Your task to perform on an android device: Go to Reddit.com Image 0: 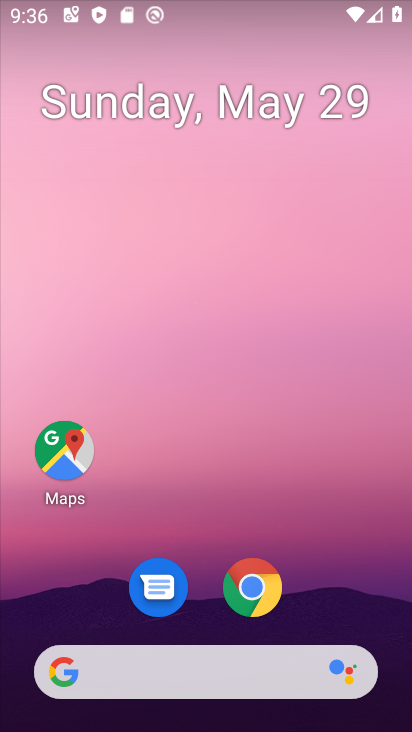
Step 0: click (257, 591)
Your task to perform on an android device: Go to Reddit.com Image 1: 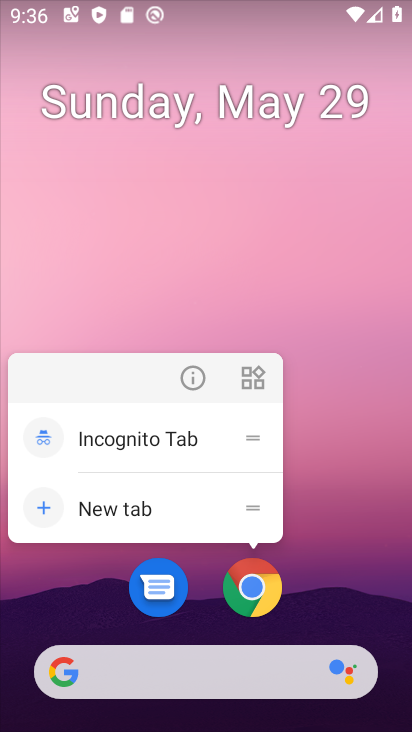
Step 1: click (257, 591)
Your task to perform on an android device: Go to Reddit.com Image 2: 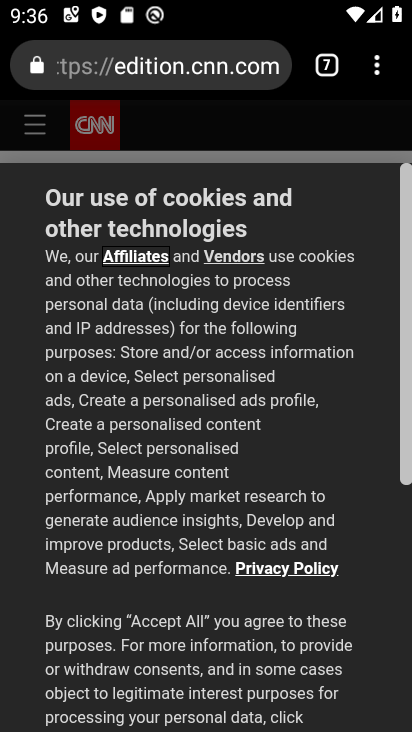
Step 2: click (342, 48)
Your task to perform on an android device: Go to Reddit.com Image 3: 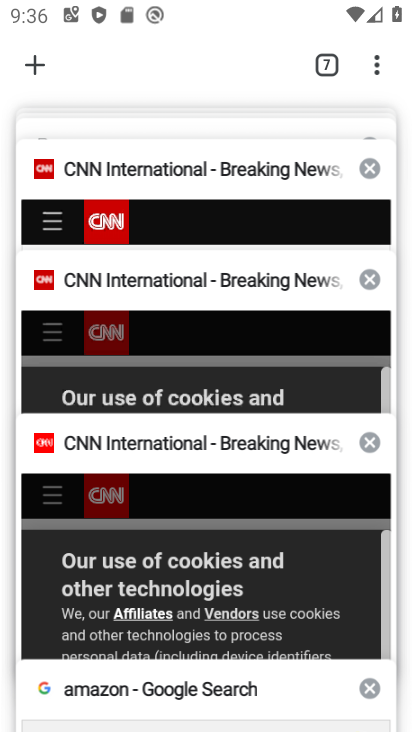
Step 3: click (34, 56)
Your task to perform on an android device: Go to Reddit.com Image 4: 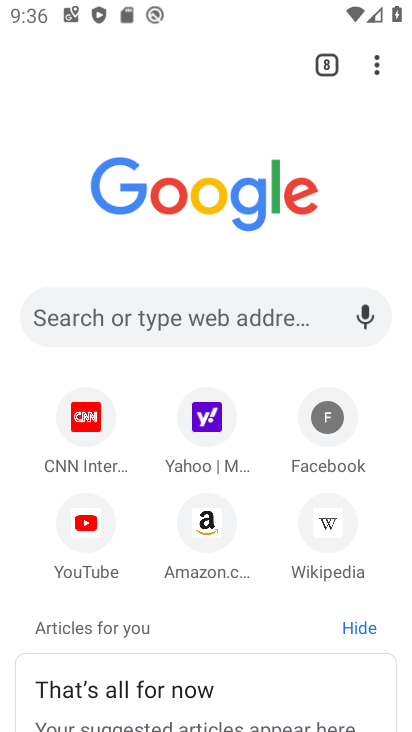
Step 4: click (83, 309)
Your task to perform on an android device: Go to Reddit.com Image 5: 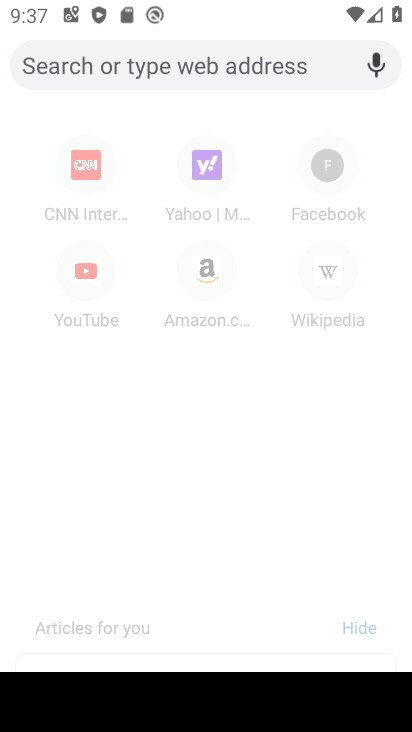
Step 5: type "reddit.com"
Your task to perform on an android device: Go to Reddit.com Image 6: 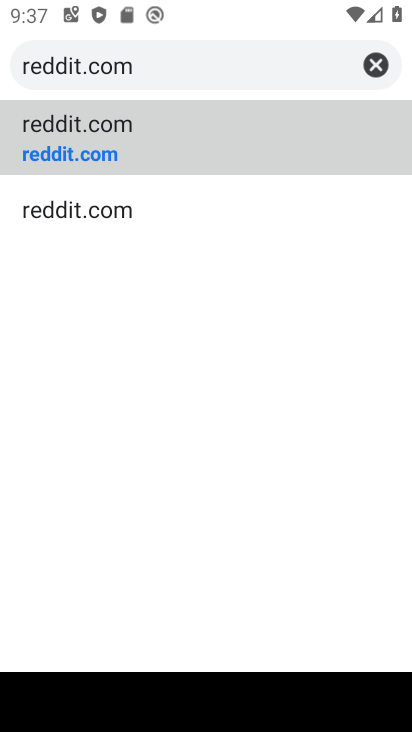
Step 6: click (132, 144)
Your task to perform on an android device: Go to Reddit.com Image 7: 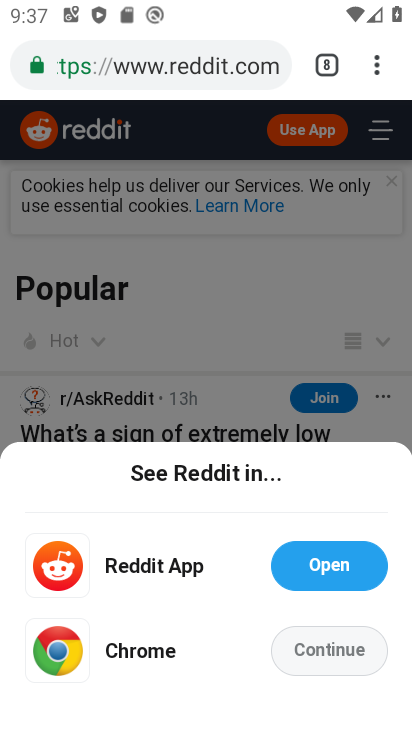
Step 7: task complete